Your task to perform on an android device: turn on location history Image 0: 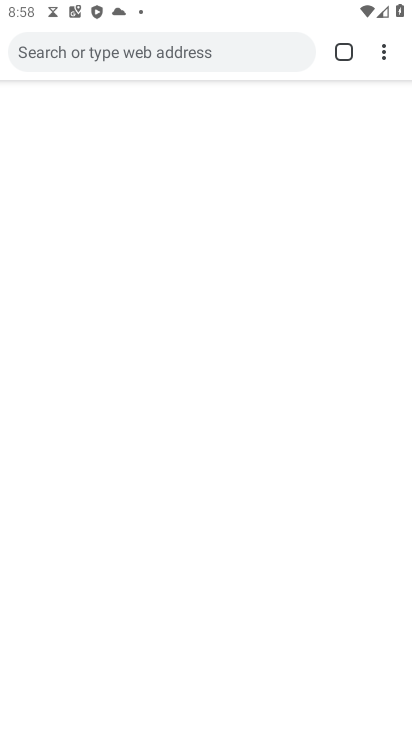
Step 0: drag from (263, 450) to (227, 296)
Your task to perform on an android device: turn on location history Image 1: 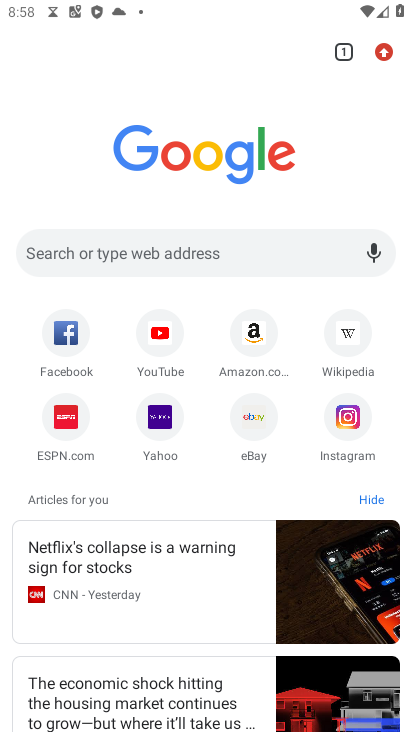
Step 1: press home button
Your task to perform on an android device: turn on location history Image 2: 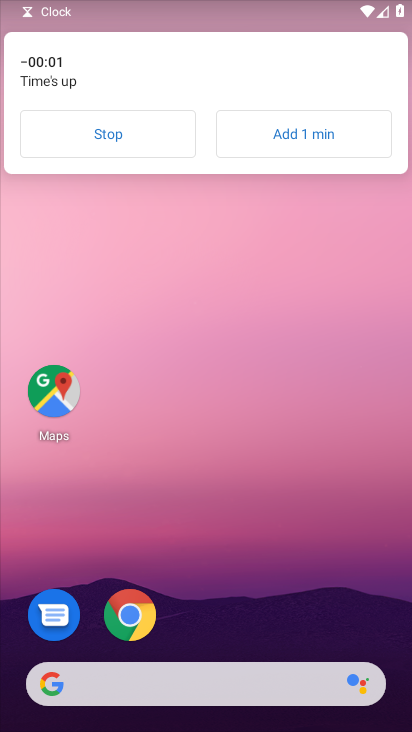
Step 2: drag from (272, 540) to (237, 222)
Your task to perform on an android device: turn on location history Image 3: 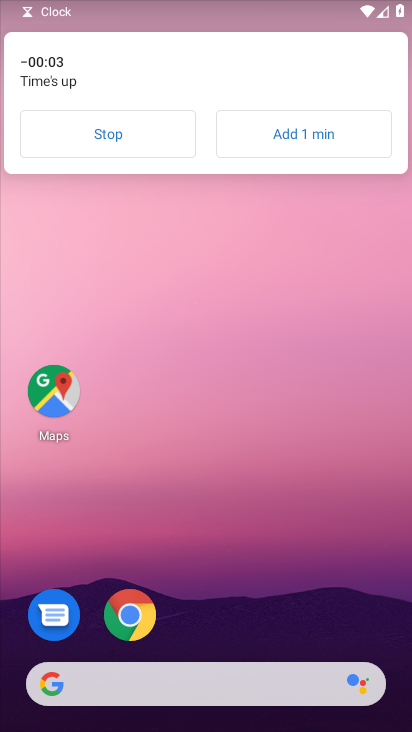
Step 3: click (105, 132)
Your task to perform on an android device: turn on location history Image 4: 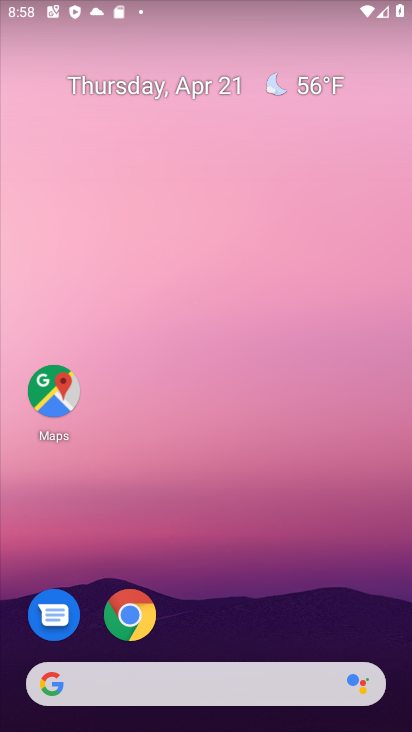
Step 4: drag from (275, 543) to (243, 197)
Your task to perform on an android device: turn on location history Image 5: 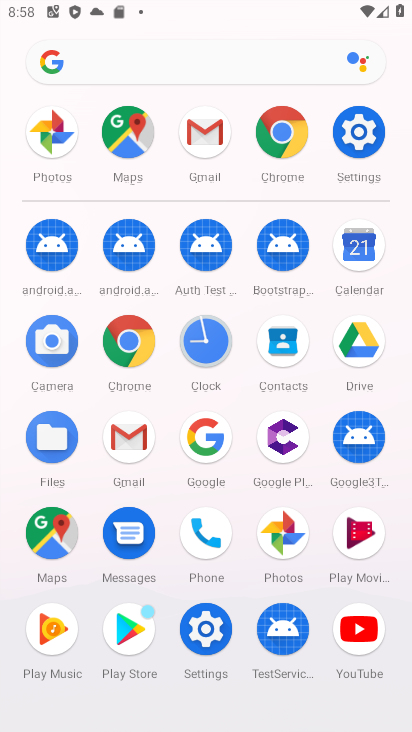
Step 5: click (360, 147)
Your task to perform on an android device: turn on location history Image 6: 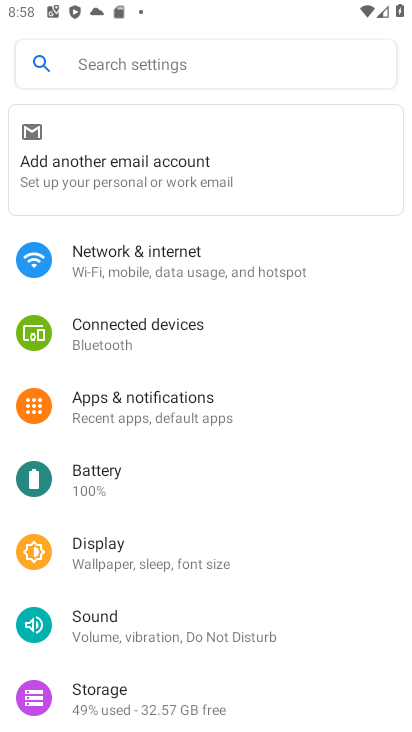
Step 6: click (102, 271)
Your task to perform on an android device: turn on location history Image 7: 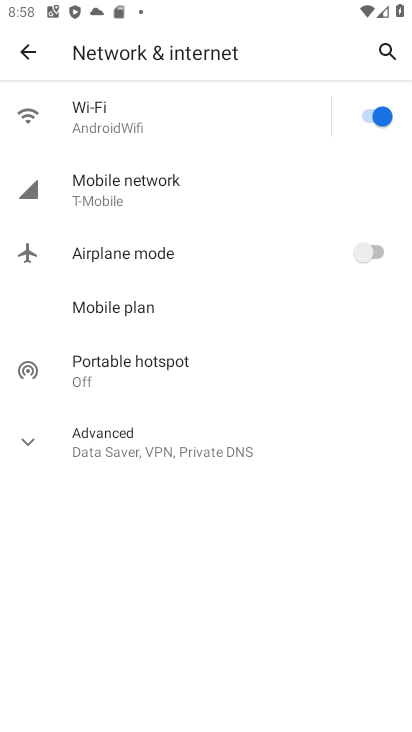
Step 7: click (17, 54)
Your task to perform on an android device: turn on location history Image 8: 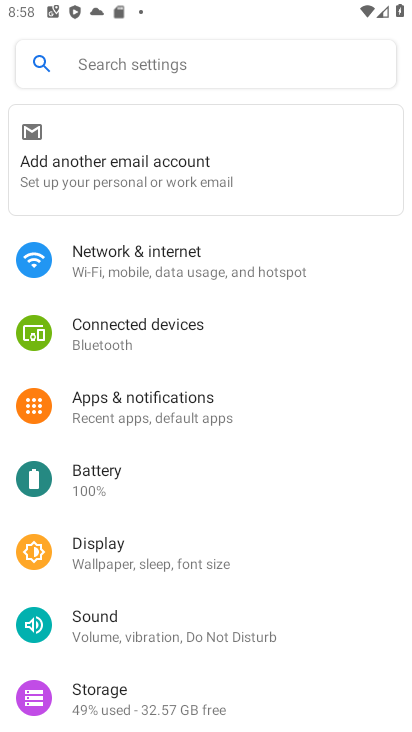
Step 8: drag from (175, 616) to (182, 282)
Your task to perform on an android device: turn on location history Image 9: 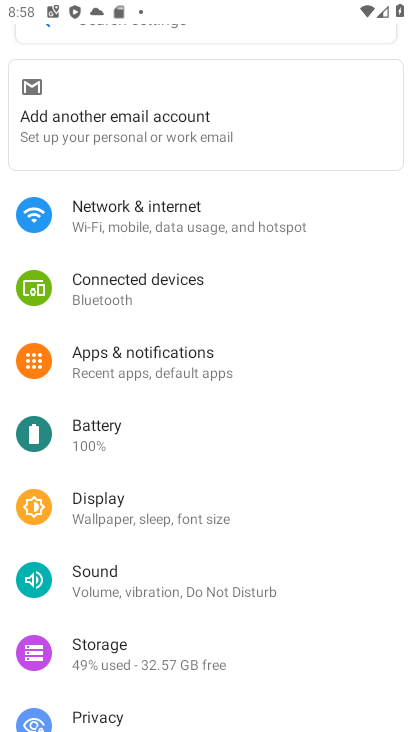
Step 9: drag from (129, 675) to (161, 333)
Your task to perform on an android device: turn on location history Image 10: 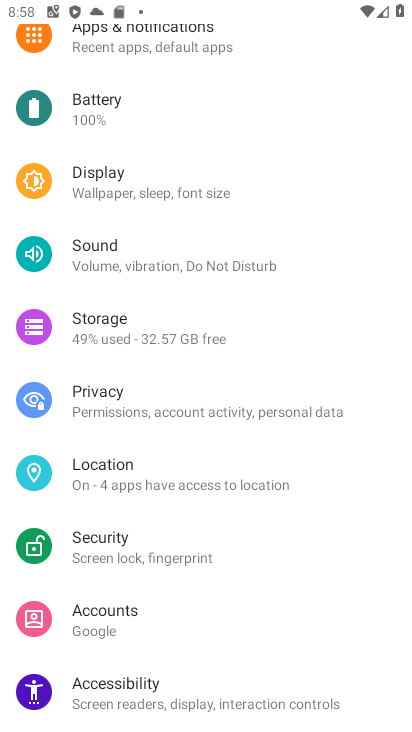
Step 10: click (102, 489)
Your task to perform on an android device: turn on location history Image 11: 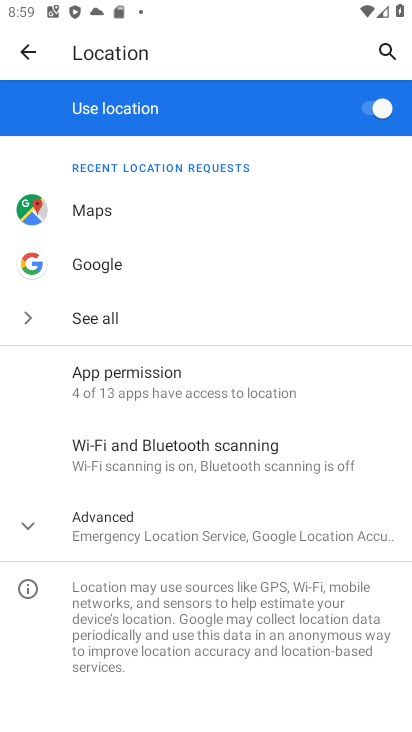
Step 11: click (107, 539)
Your task to perform on an android device: turn on location history Image 12: 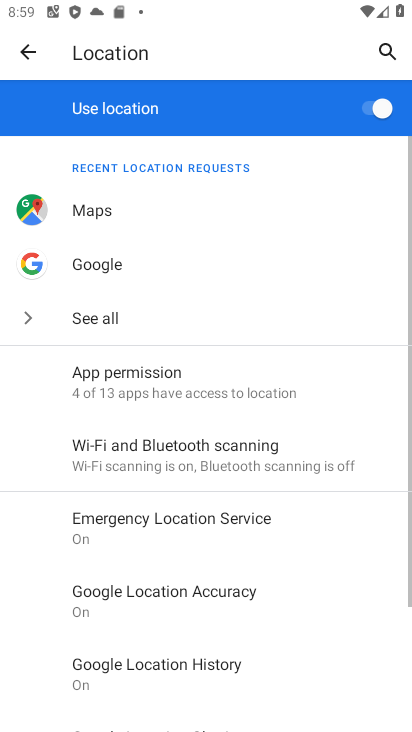
Step 12: task complete